Your task to perform on an android device: Open the calendar app, open the side menu, and click the "Day" option Image 0: 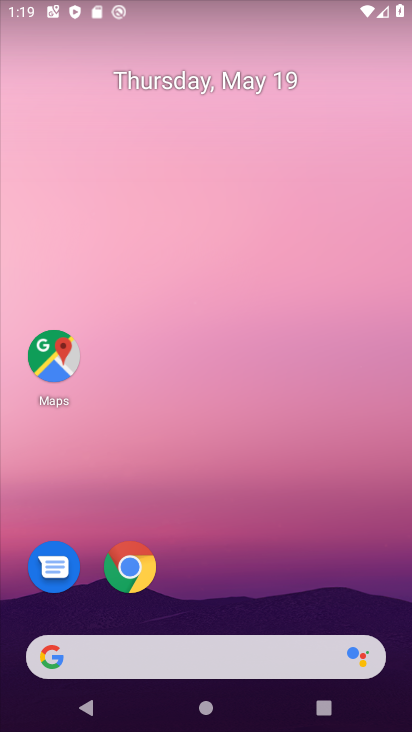
Step 0: drag from (23, 580) to (237, 139)
Your task to perform on an android device: Open the calendar app, open the side menu, and click the "Day" option Image 1: 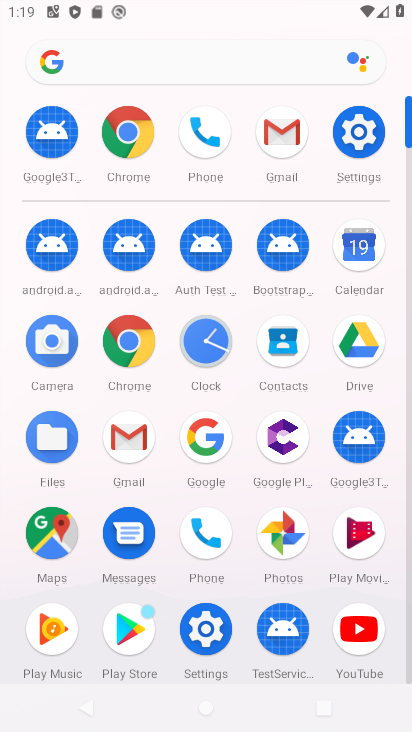
Step 1: click (356, 236)
Your task to perform on an android device: Open the calendar app, open the side menu, and click the "Day" option Image 2: 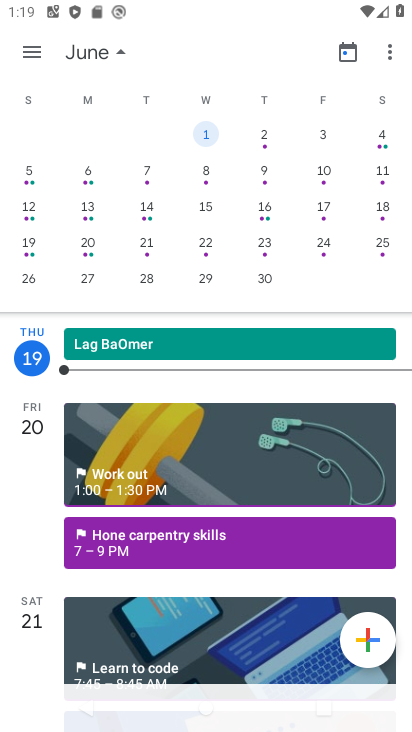
Step 2: click (32, 54)
Your task to perform on an android device: Open the calendar app, open the side menu, and click the "Day" option Image 3: 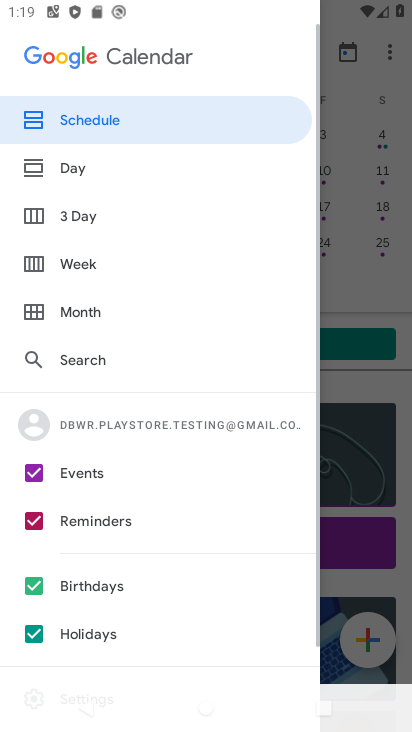
Step 3: click (111, 163)
Your task to perform on an android device: Open the calendar app, open the side menu, and click the "Day" option Image 4: 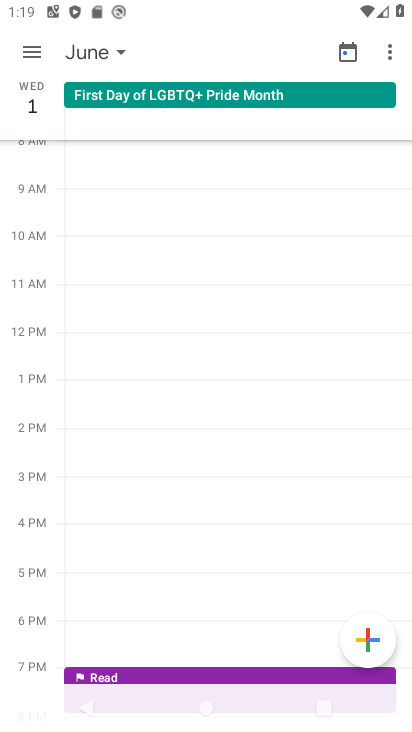
Step 4: task complete